Your task to perform on an android device: visit the assistant section in the google photos Image 0: 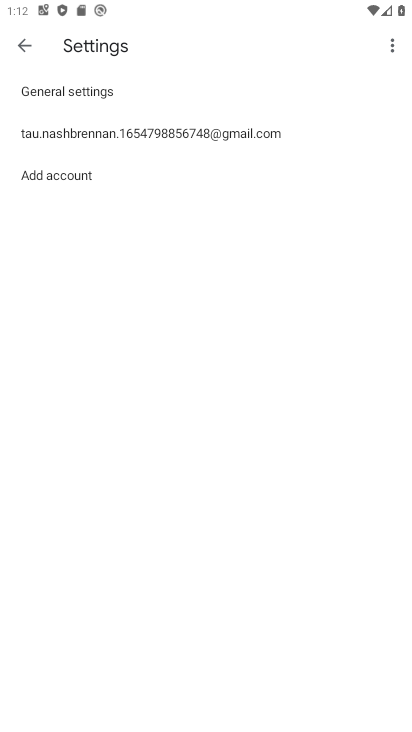
Step 0: press home button
Your task to perform on an android device: visit the assistant section in the google photos Image 1: 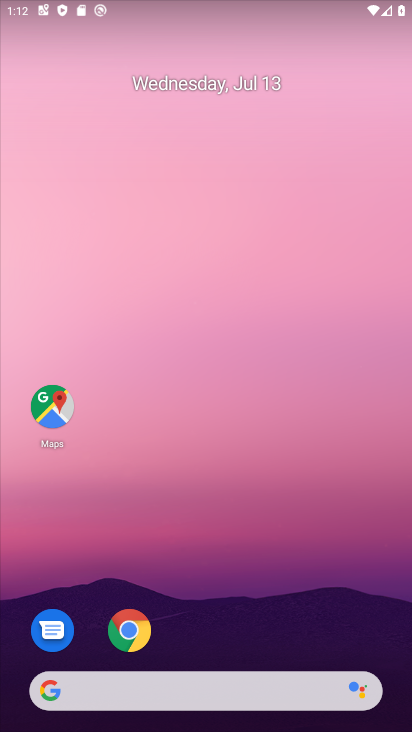
Step 1: drag from (331, 476) to (337, 52)
Your task to perform on an android device: visit the assistant section in the google photos Image 2: 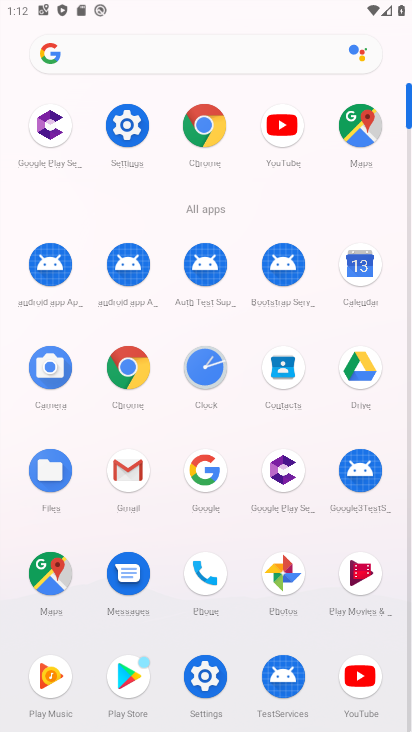
Step 2: click (283, 572)
Your task to perform on an android device: visit the assistant section in the google photos Image 3: 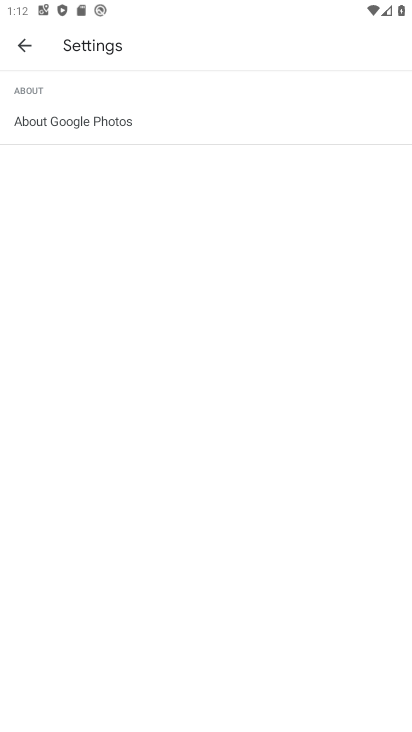
Step 3: press back button
Your task to perform on an android device: visit the assistant section in the google photos Image 4: 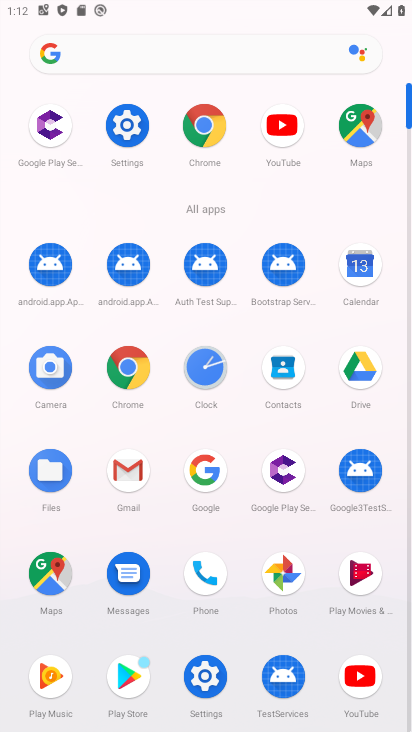
Step 4: click (292, 567)
Your task to perform on an android device: visit the assistant section in the google photos Image 5: 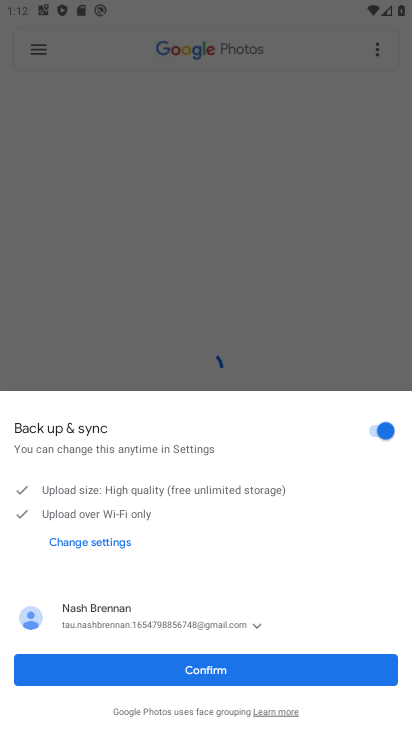
Step 5: click (258, 672)
Your task to perform on an android device: visit the assistant section in the google photos Image 6: 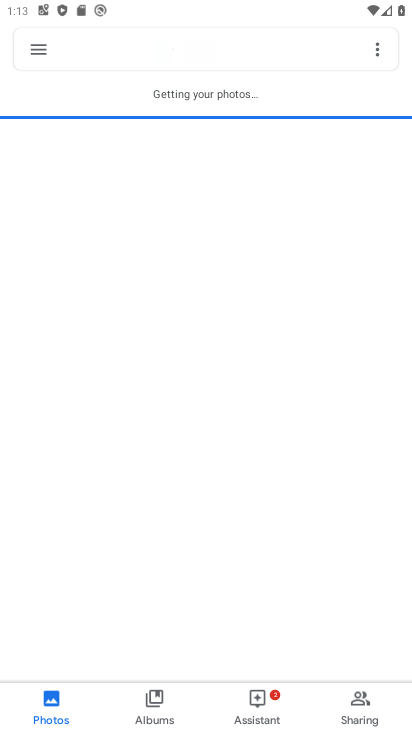
Step 6: click (253, 717)
Your task to perform on an android device: visit the assistant section in the google photos Image 7: 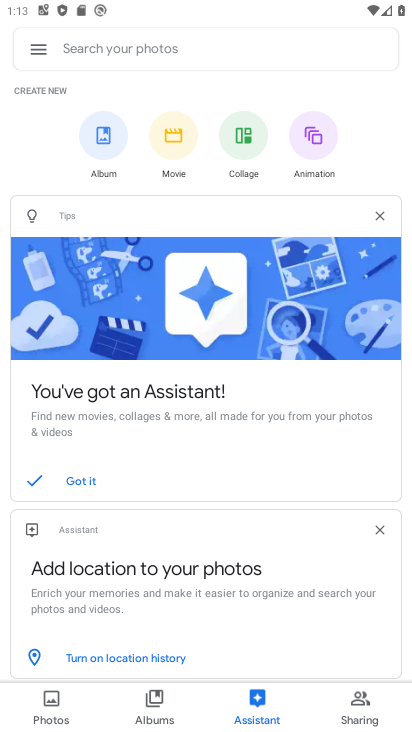
Step 7: task complete